Your task to perform on an android device: When is my next meeting? Image 0: 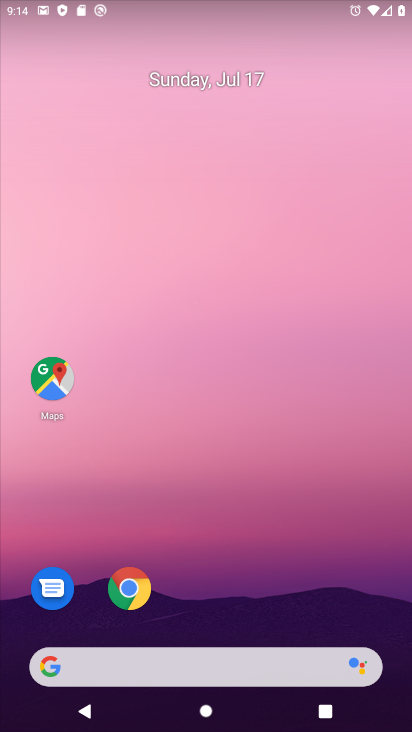
Step 0: drag from (275, 644) to (256, 152)
Your task to perform on an android device: When is my next meeting? Image 1: 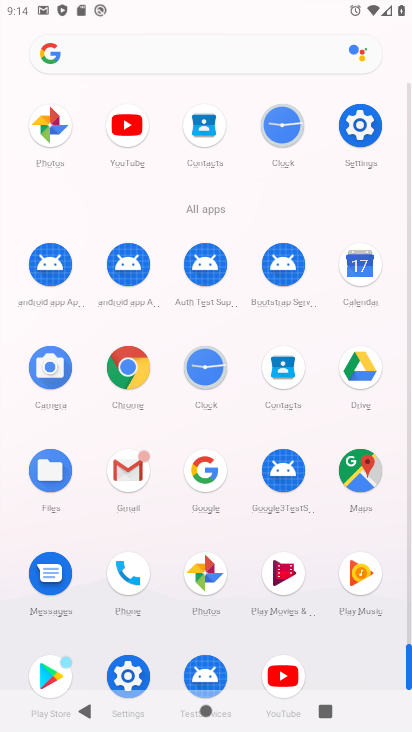
Step 1: drag from (250, 499) to (246, 135)
Your task to perform on an android device: When is my next meeting? Image 2: 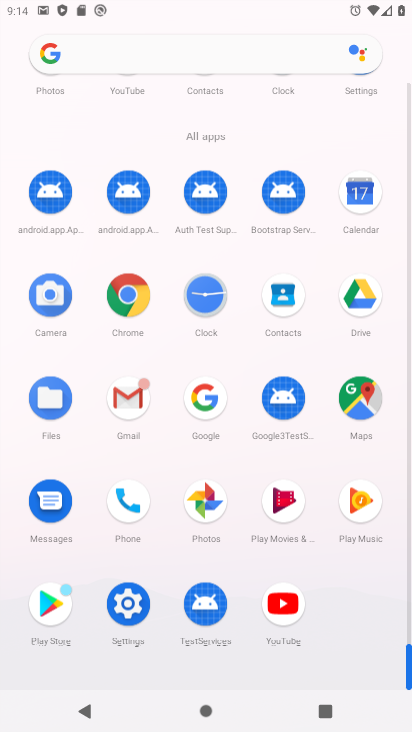
Step 2: drag from (279, 318) to (276, 41)
Your task to perform on an android device: When is my next meeting? Image 3: 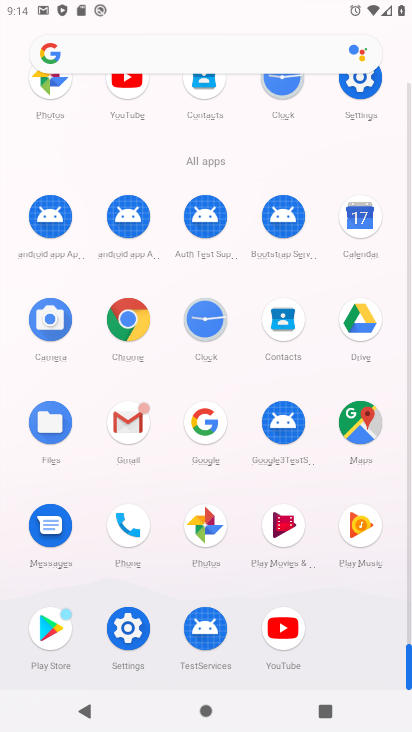
Step 3: click (362, 233)
Your task to perform on an android device: When is my next meeting? Image 4: 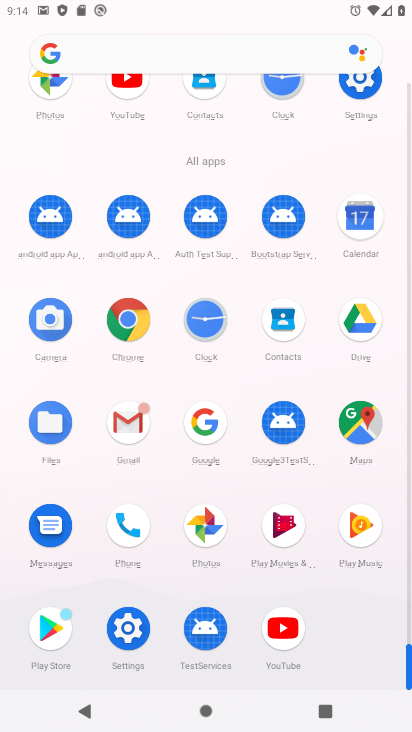
Step 4: click (363, 229)
Your task to perform on an android device: When is my next meeting? Image 5: 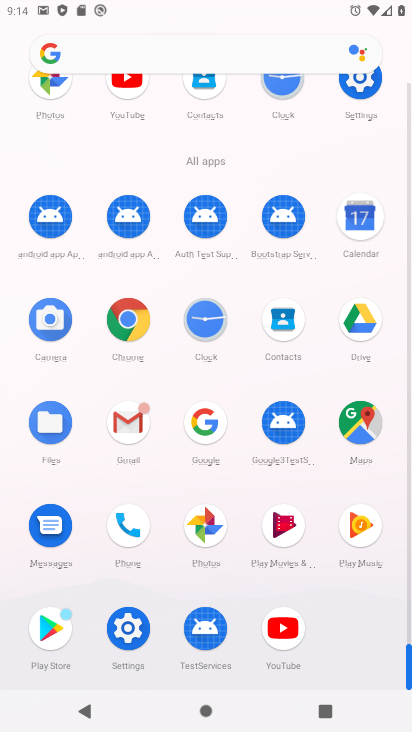
Step 5: click (363, 229)
Your task to perform on an android device: When is my next meeting? Image 6: 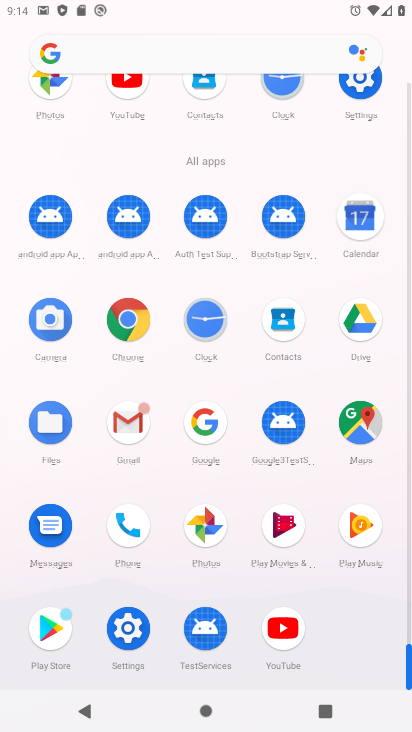
Step 6: click (362, 225)
Your task to perform on an android device: When is my next meeting? Image 7: 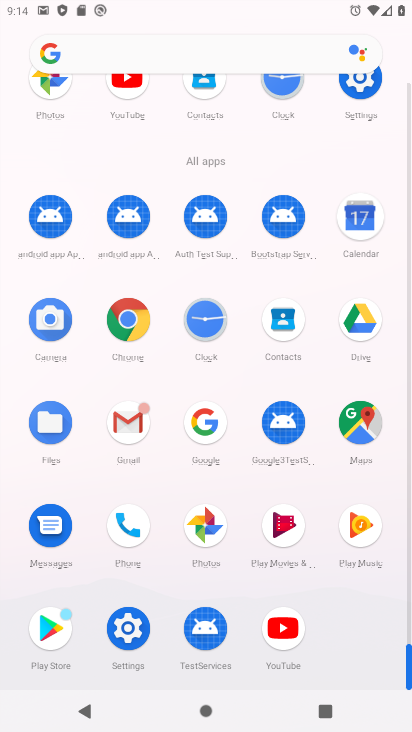
Step 7: click (354, 218)
Your task to perform on an android device: When is my next meeting? Image 8: 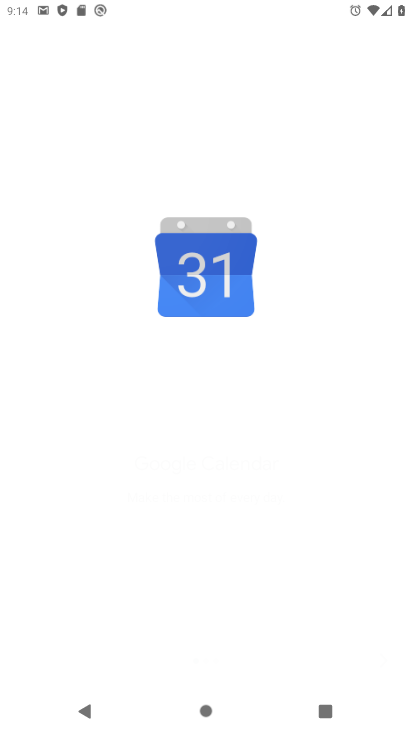
Step 8: drag from (349, 198) to (365, 230)
Your task to perform on an android device: When is my next meeting? Image 9: 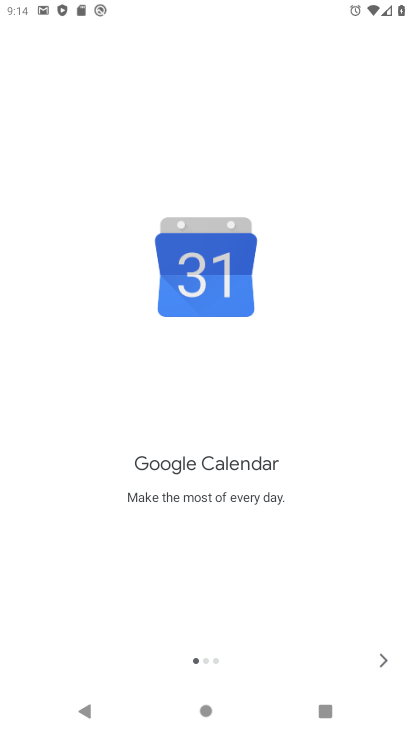
Step 9: click (382, 666)
Your task to perform on an android device: When is my next meeting? Image 10: 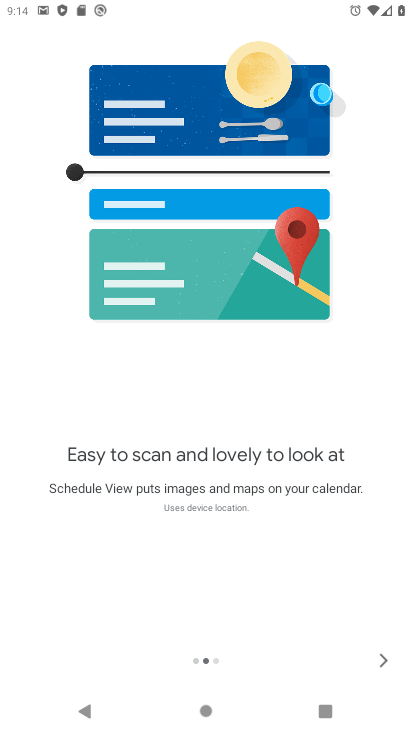
Step 10: click (380, 660)
Your task to perform on an android device: When is my next meeting? Image 11: 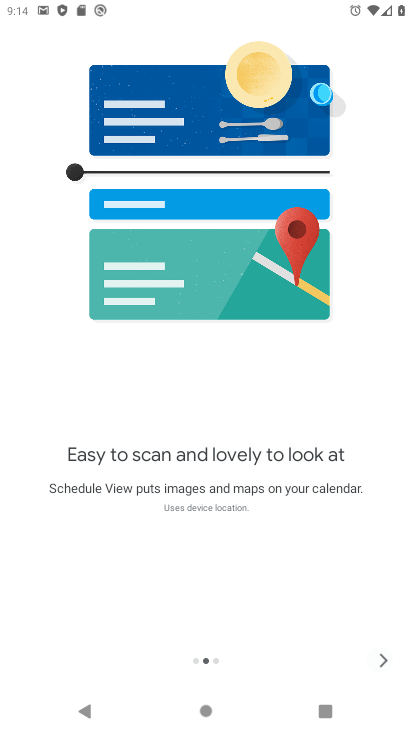
Step 11: click (382, 660)
Your task to perform on an android device: When is my next meeting? Image 12: 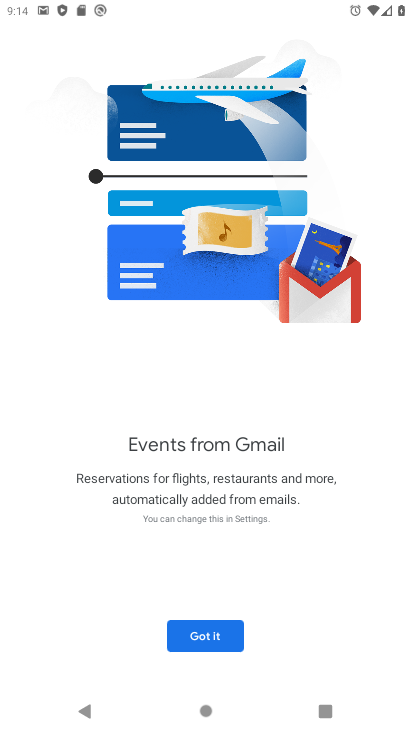
Step 12: click (374, 650)
Your task to perform on an android device: When is my next meeting? Image 13: 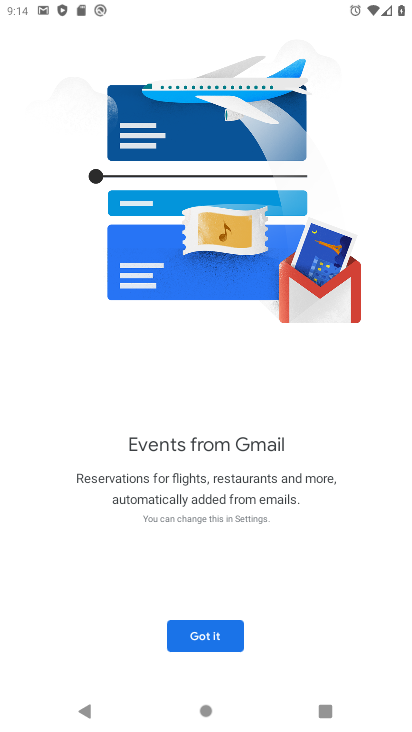
Step 13: click (247, 637)
Your task to perform on an android device: When is my next meeting? Image 14: 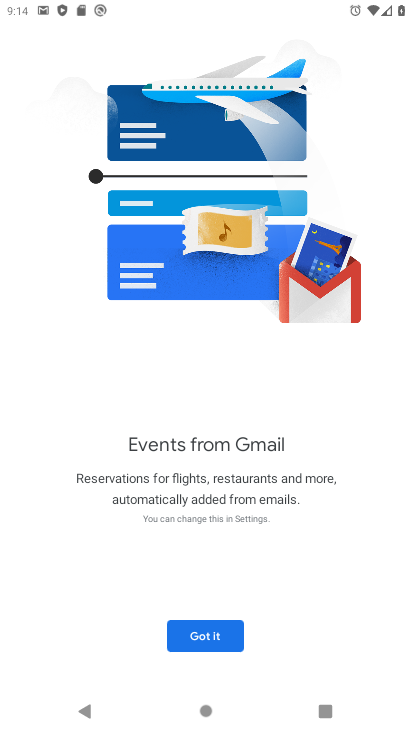
Step 14: click (227, 636)
Your task to perform on an android device: When is my next meeting? Image 15: 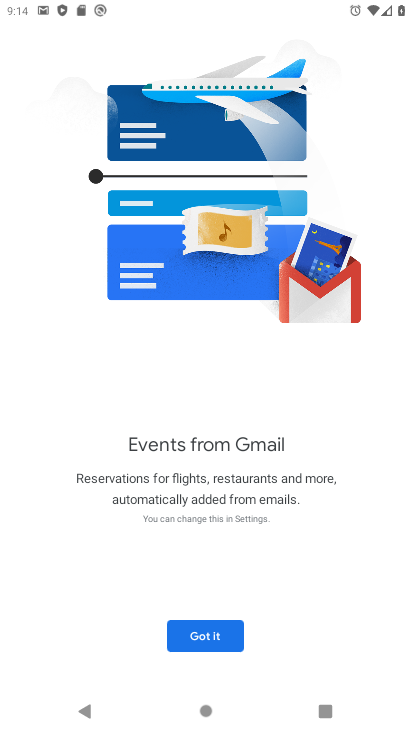
Step 15: click (220, 633)
Your task to perform on an android device: When is my next meeting? Image 16: 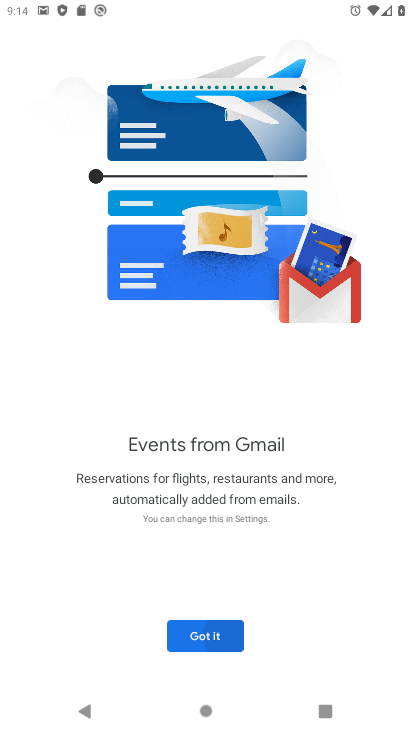
Step 16: click (216, 631)
Your task to perform on an android device: When is my next meeting? Image 17: 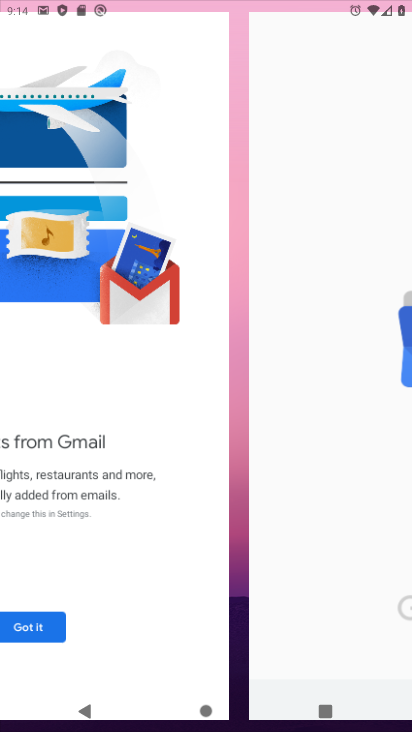
Step 17: click (216, 633)
Your task to perform on an android device: When is my next meeting? Image 18: 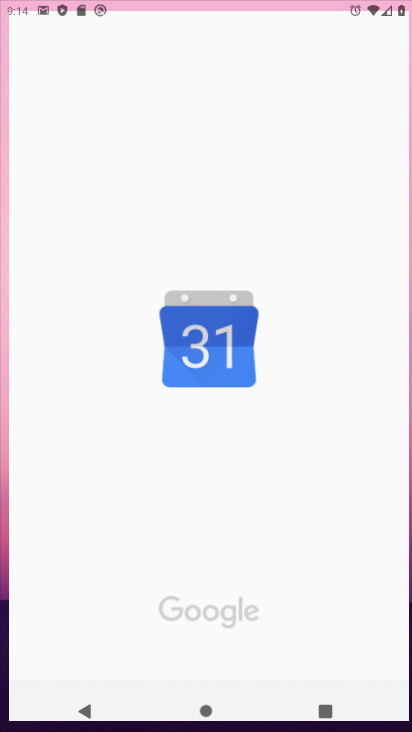
Step 18: click (216, 634)
Your task to perform on an android device: When is my next meeting? Image 19: 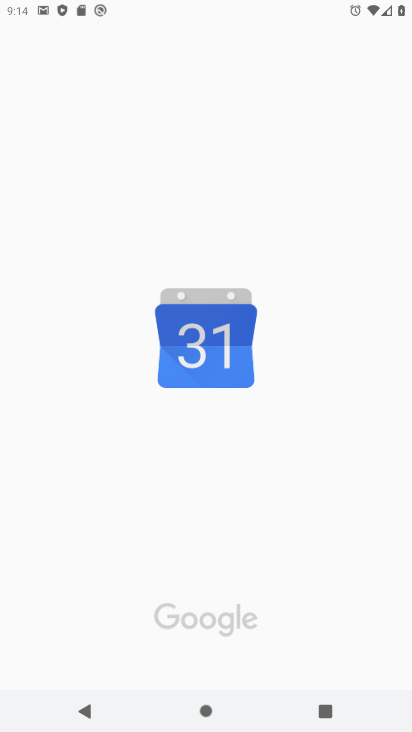
Step 19: click (216, 635)
Your task to perform on an android device: When is my next meeting? Image 20: 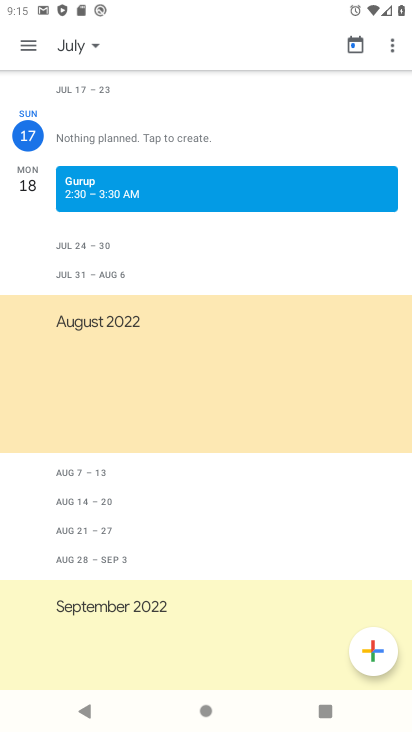
Step 20: click (95, 51)
Your task to perform on an android device: When is my next meeting? Image 21: 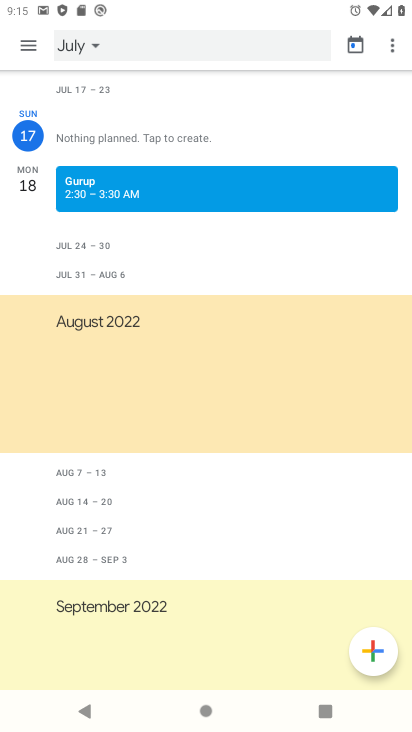
Step 21: click (95, 51)
Your task to perform on an android device: When is my next meeting? Image 22: 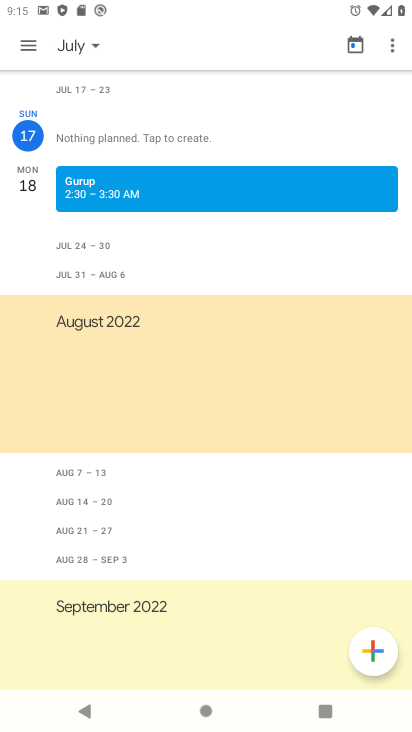
Step 22: click (97, 45)
Your task to perform on an android device: When is my next meeting? Image 23: 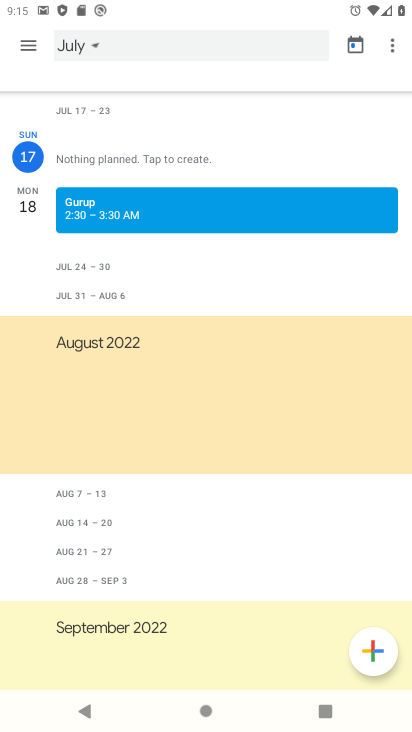
Step 23: click (99, 46)
Your task to perform on an android device: When is my next meeting? Image 24: 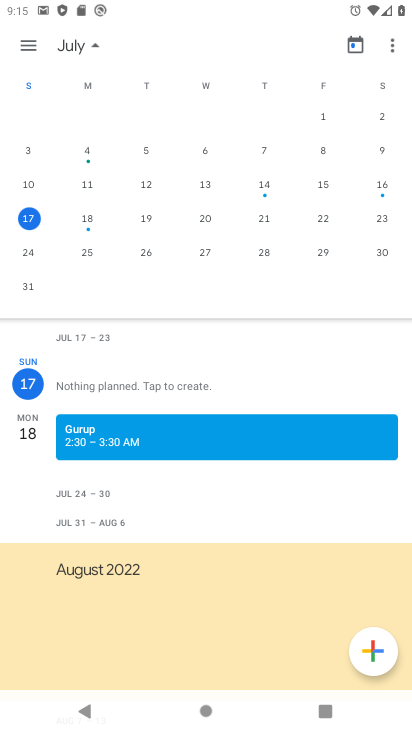
Step 24: click (97, 50)
Your task to perform on an android device: When is my next meeting? Image 25: 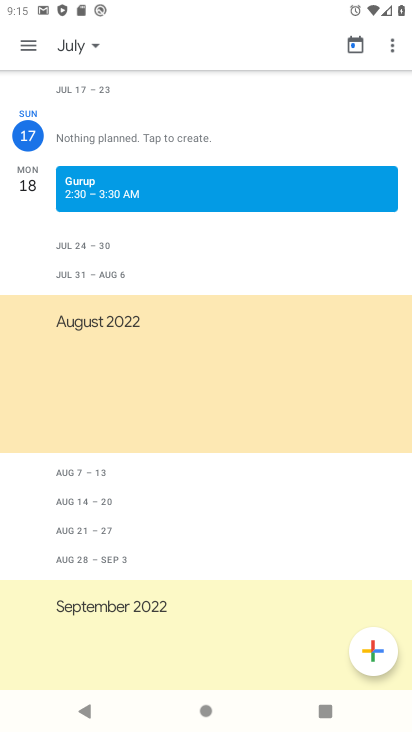
Step 25: click (97, 45)
Your task to perform on an android device: When is my next meeting? Image 26: 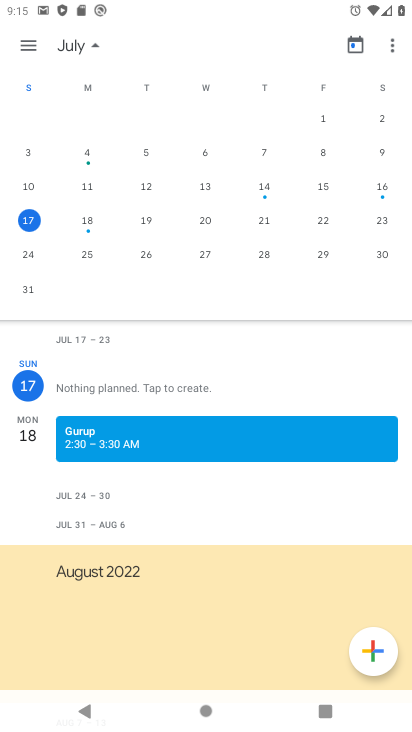
Step 26: click (146, 213)
Your task to perform on an android device: When is my next meeting? Image 27: 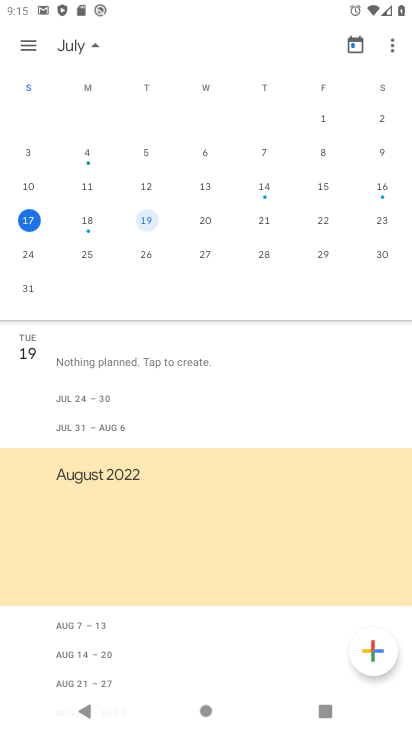
Step 27: click (142, 230)
Your task to perform on an android device: When is my next meeting? Image 28: 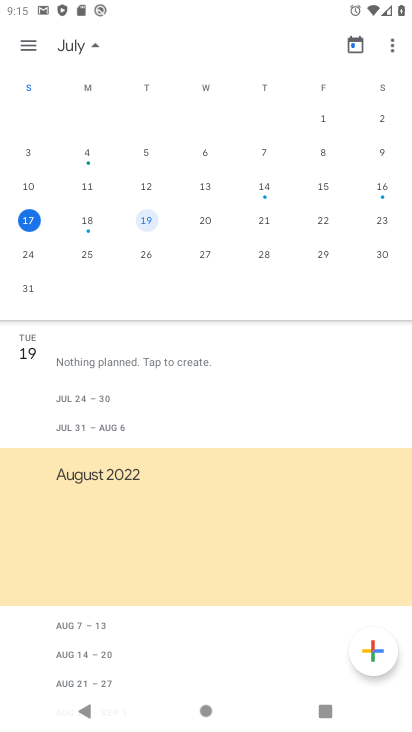
Step 28: task complete